Your task to perform on an android device: Open battery settings Image 0: 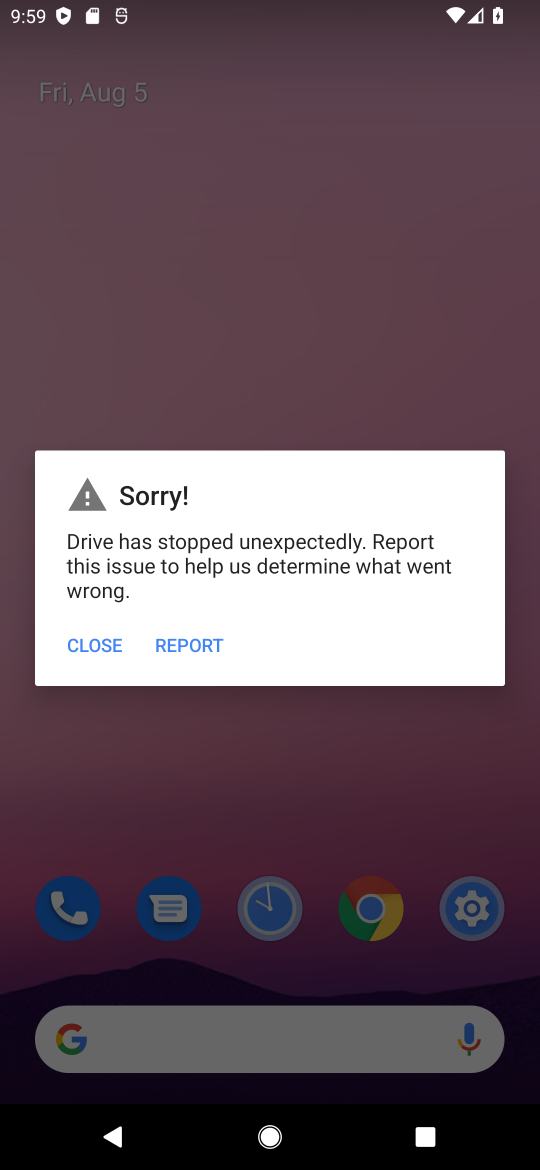
Step 0: task complete